Your task to perform on an android device: Add "jbl flip 4" to the cart on amazon.com Image 0: 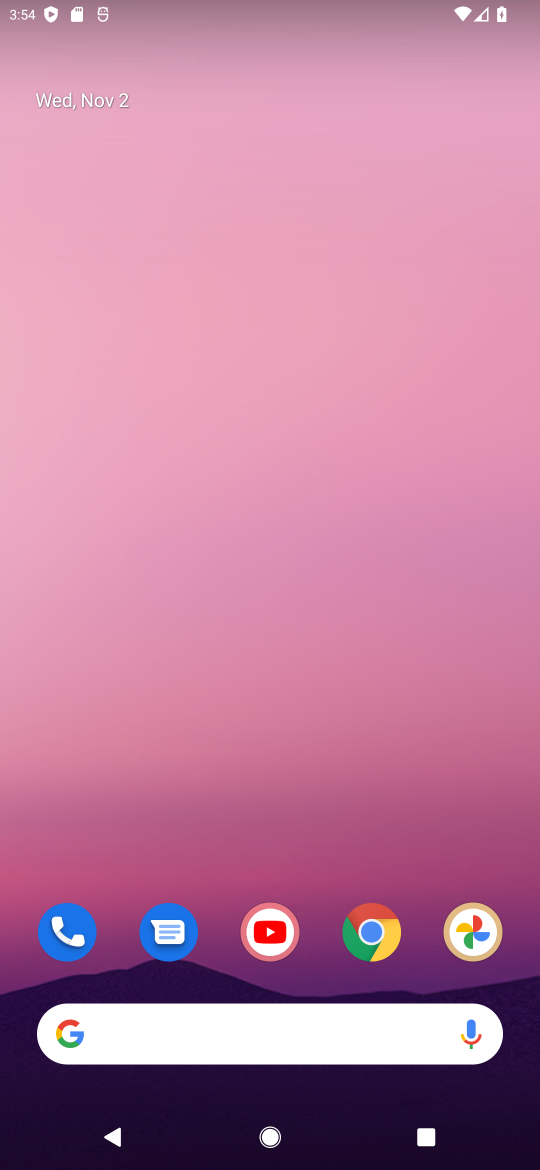
Step 0: press enter
Your task to perform on an android device: Add "jbl flip 4" to the cart on amazon.com Image 1: 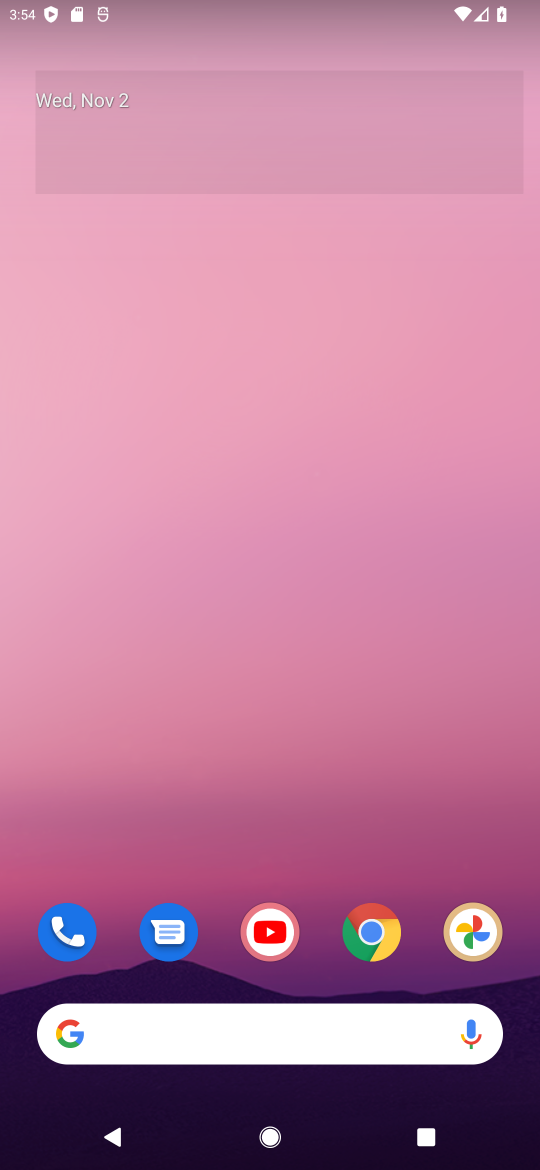
Step 1: click (371, 945)
Your task to perform on an android device: Add "jbl flip 4" to the cart on amazon.com Image 2: 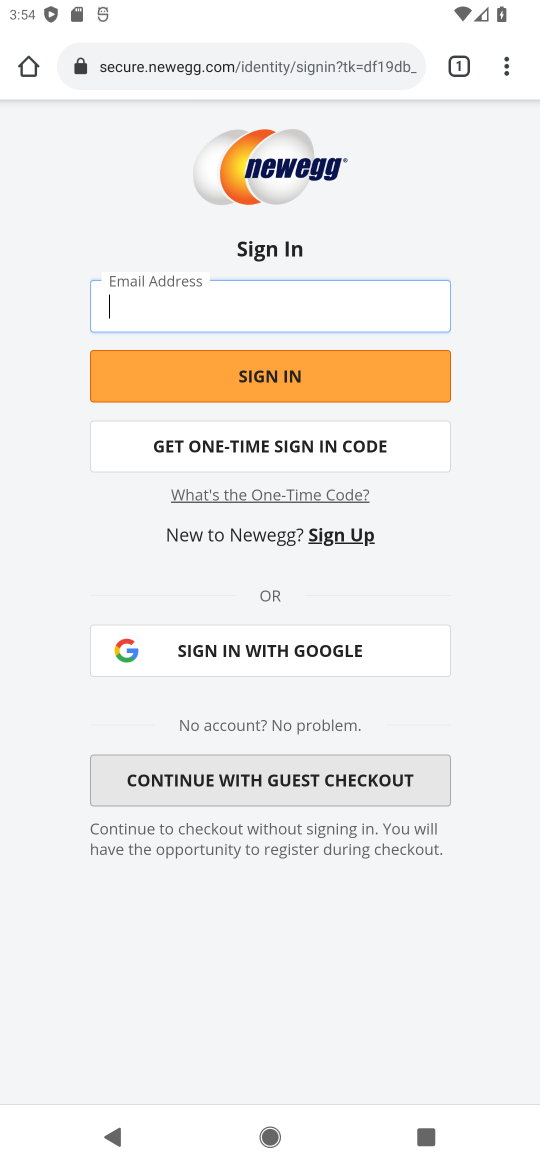
Step 2: click (139, 82)
Your task to perform on an android device: Add "jbl flip 4" to the cart on amazon.com Image 3: 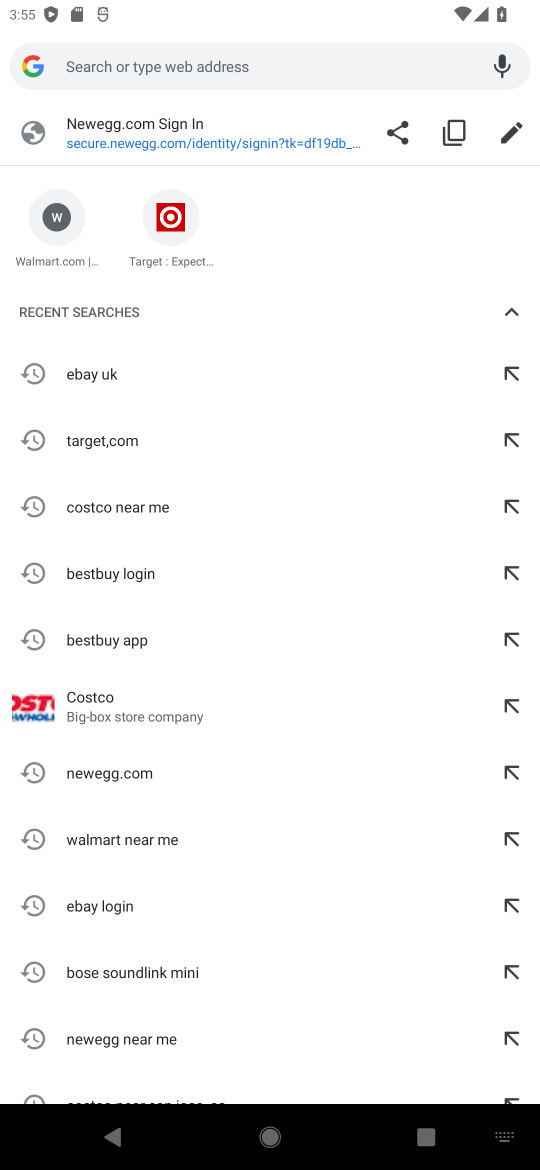
Step 3: type "amazon.com"
Your task to perform on an android device: Add "jbl flip 4" to the cart on amazon.com Image 4: 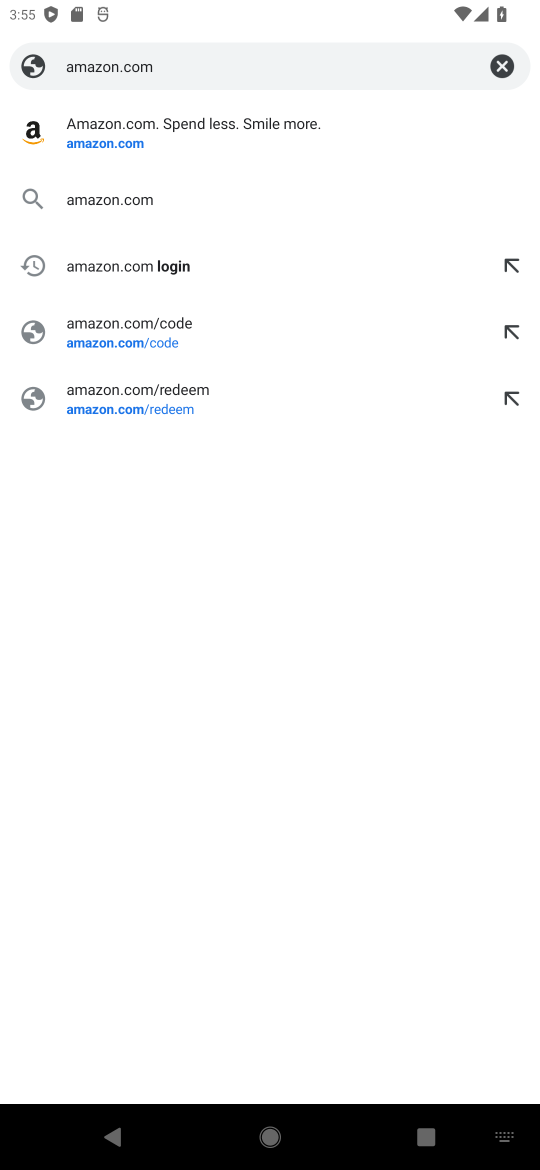
Step 4: press enter
Your task to perform on an android device: Add "jbl flip 4" to the cart on amazon.com Image 5: 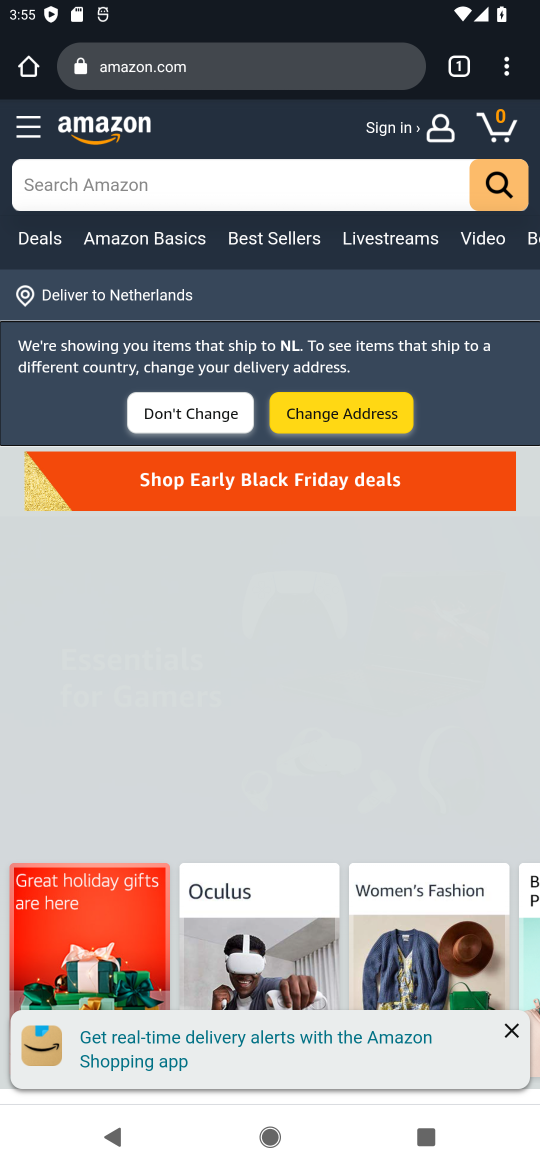
Step 5: click (211, 421)
Your task to perform on an android device: Add "jbl flip 4" to the cart on amazon.com Image 6: 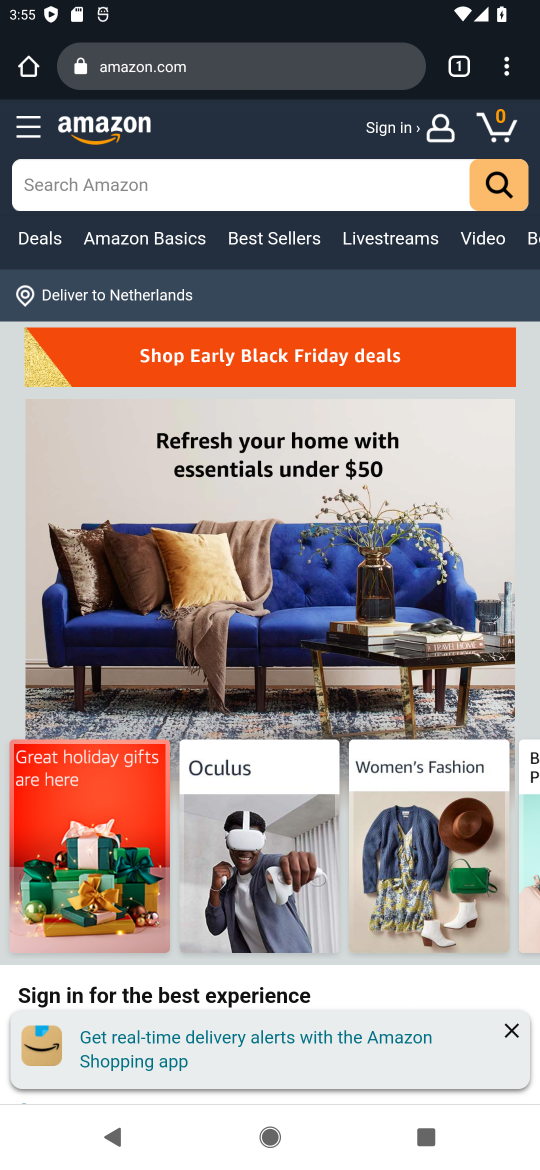
Step 6: click (138, 187)
Your task to perform on an android device: Add "jbl flip 4" to the cart on amazon.com Image 7: 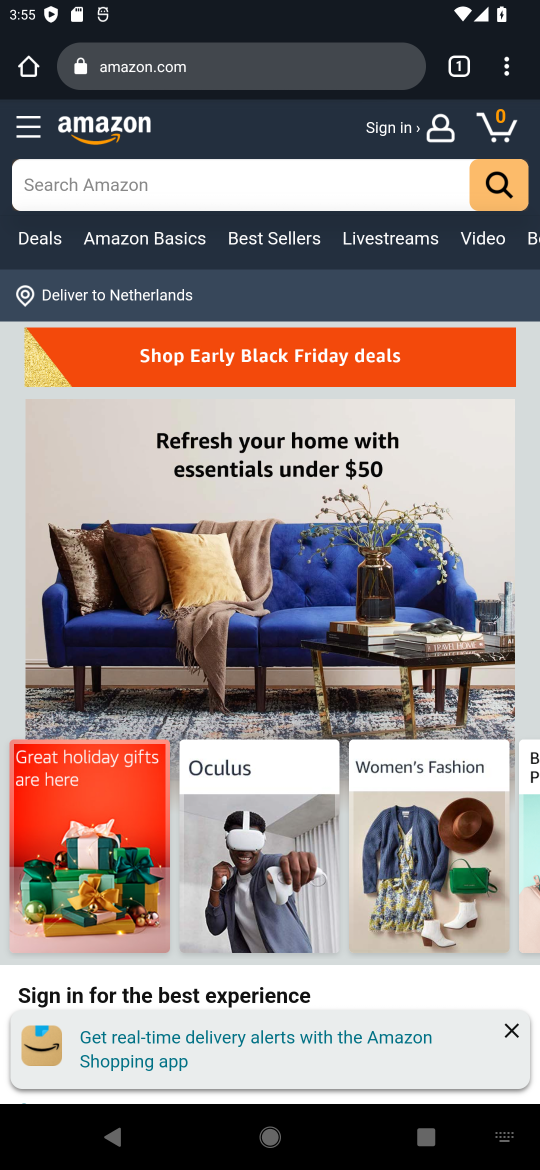
Step 7: type "jbl flip 4"
Your task to perform on an android device: Add "jbl flip 4" to the cart on amazon.com Image 8: 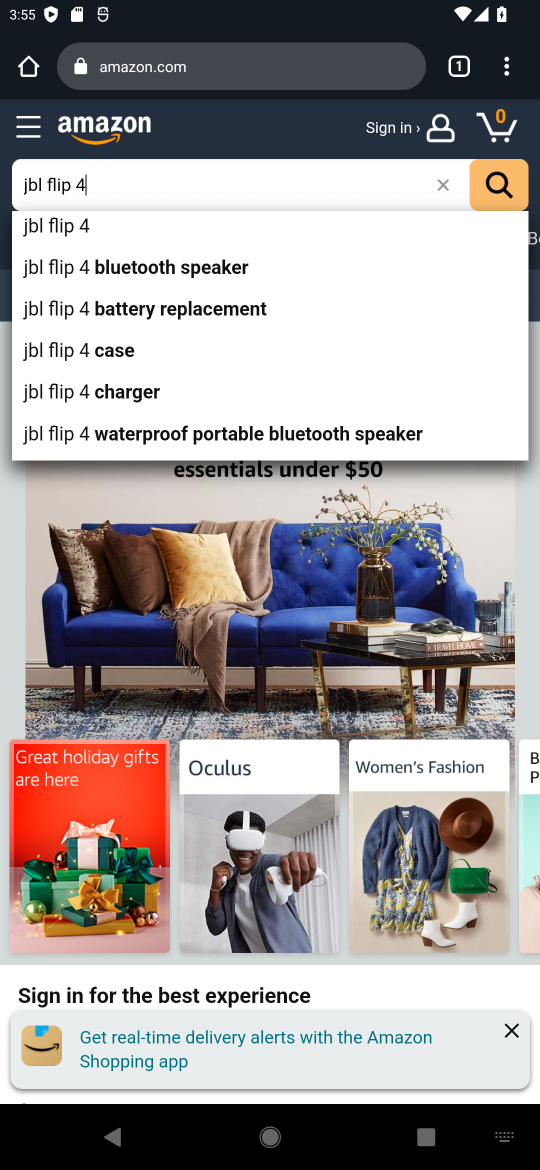
Step 8: press enter
Your task to perform on an android device: Add "jbl flip 4" to the cart on amazon.com Image 9: 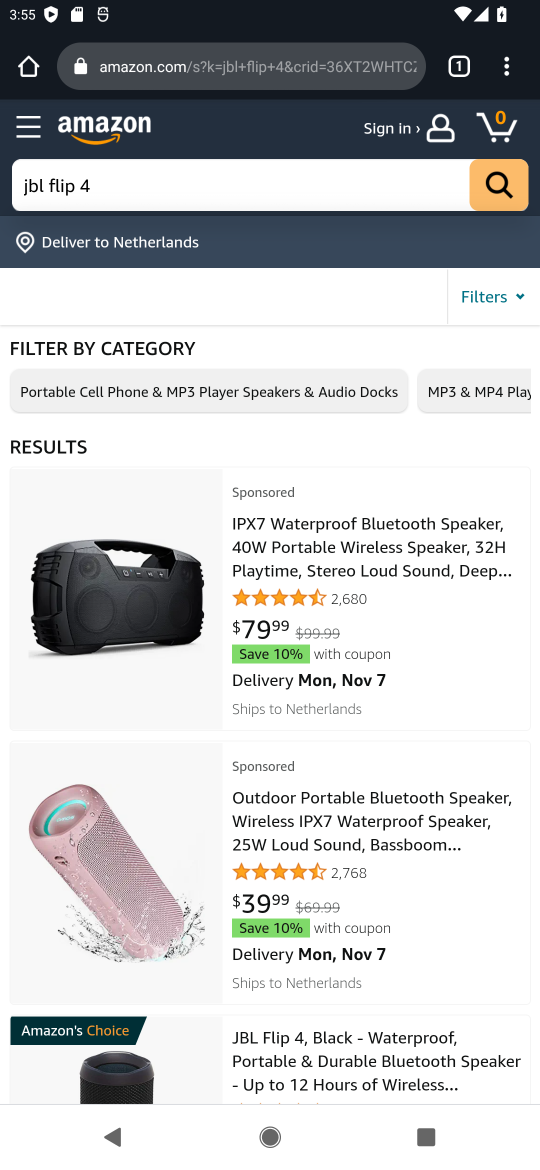
Step 9: drag from (365, 1025) to (378, 905)
Your task to perform on an android device: Add "jbl flip 4" to the cart on amazon.com Image 10: 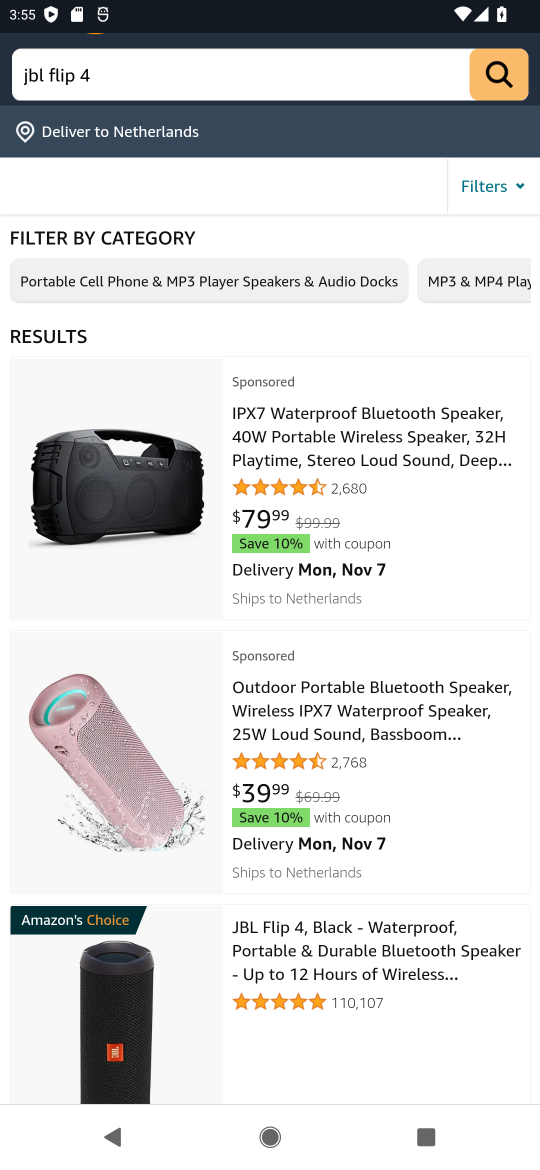
Step 10: click (283, 946)
Your task to perform on an android device: Add "jbl flip 4" to the cart on amazon.com Image 11: 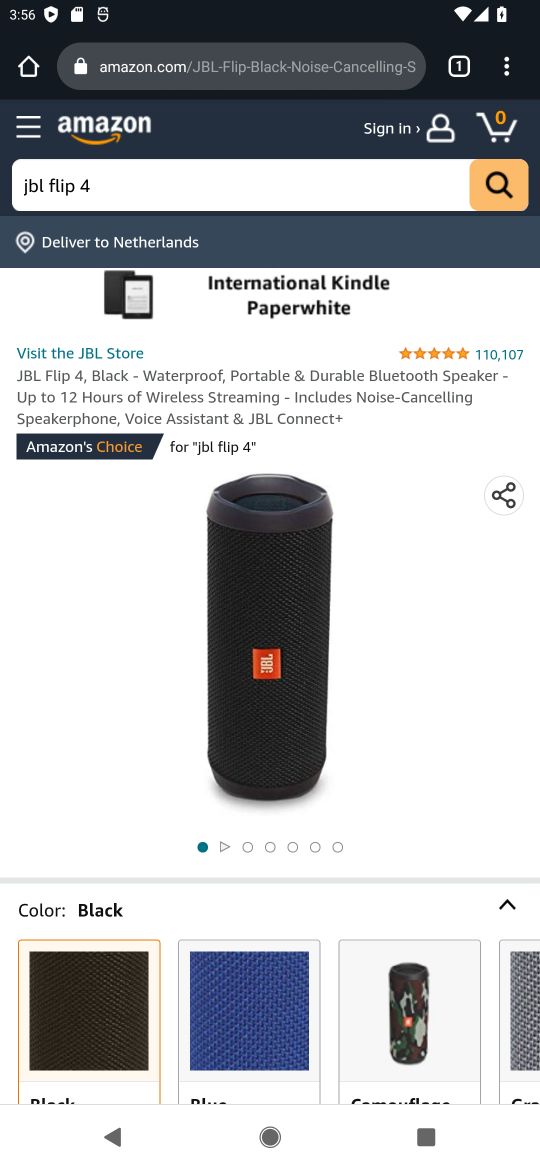
Step 11: task complete